Your task to perform on an android device: show emergency info Image 0: 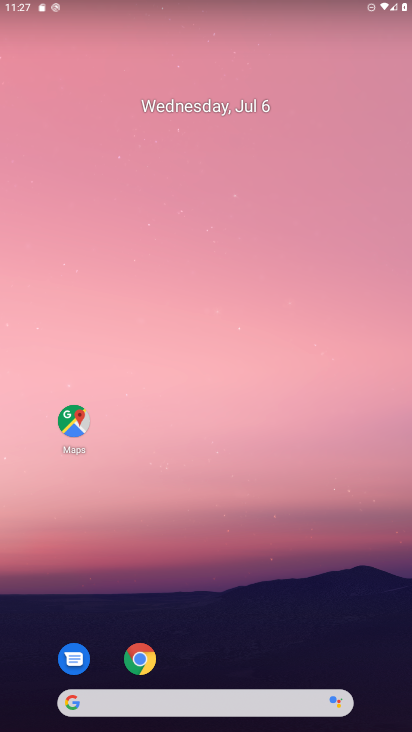
Step 0: drag from (271, 609) to (341, 0)
Your task to perform on an android device: show emergency info Image 1: 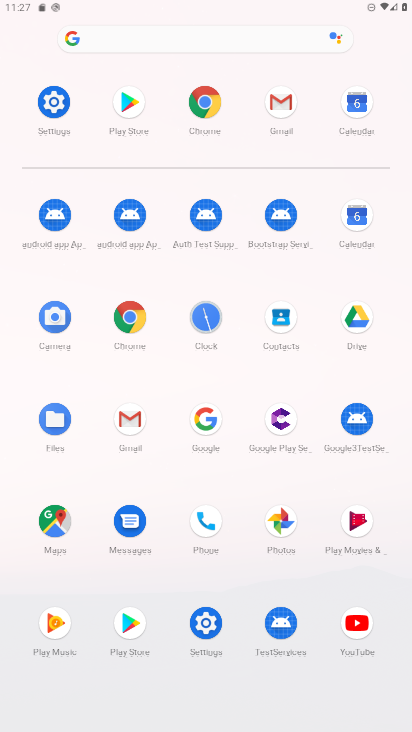
Step 1: click (52, 109)
Your task to perform on an android device: show emergency info Image 2: 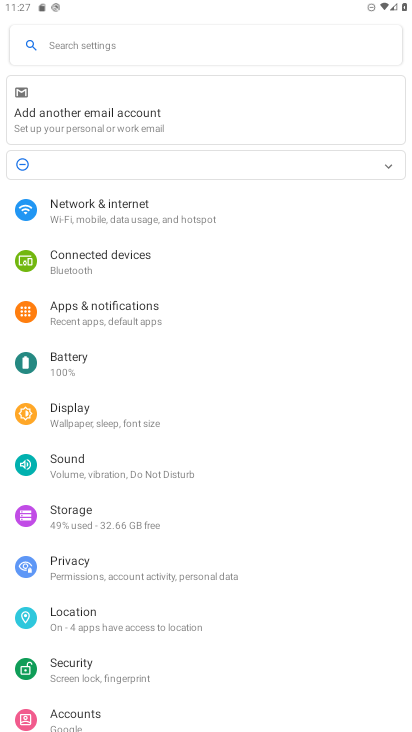
Step 2: drag from (139, 640) to (226, 104)
Your task to perform on an android device: show emergency info Image 3: 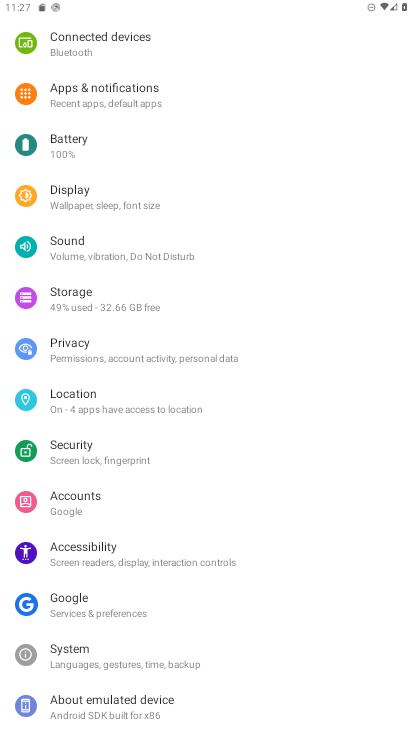
Step 3: click (159, 713)
Your task to perform on an android device: show emergency info Image 4: 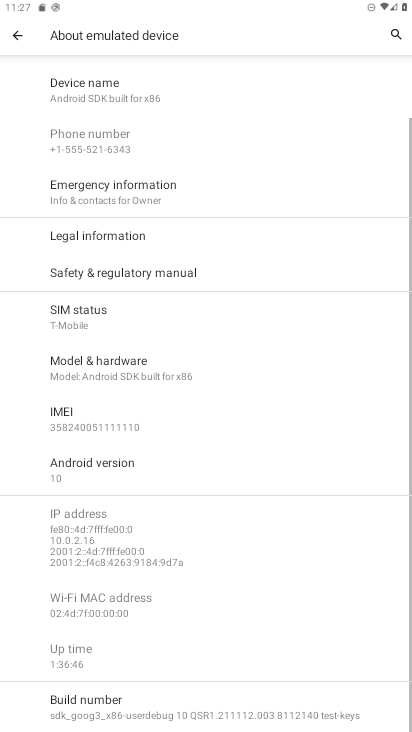
Step 4: click (137, 178)
Your task to perform on an android device: show emergency info Image 5: 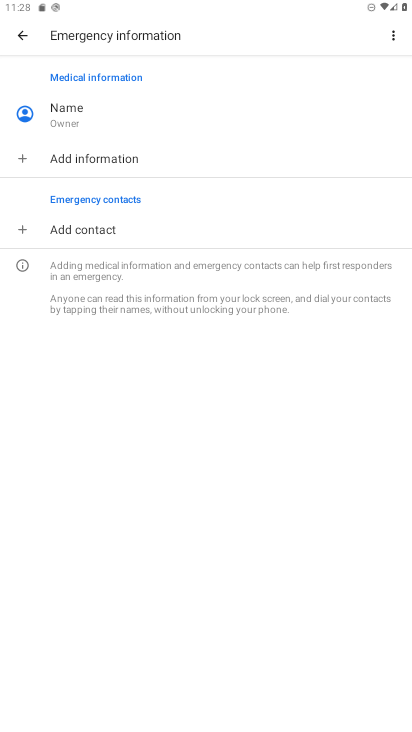
Step 5: task complete